Your task to perform on an android device: Search for sushi restaurants on Maps Image 0: 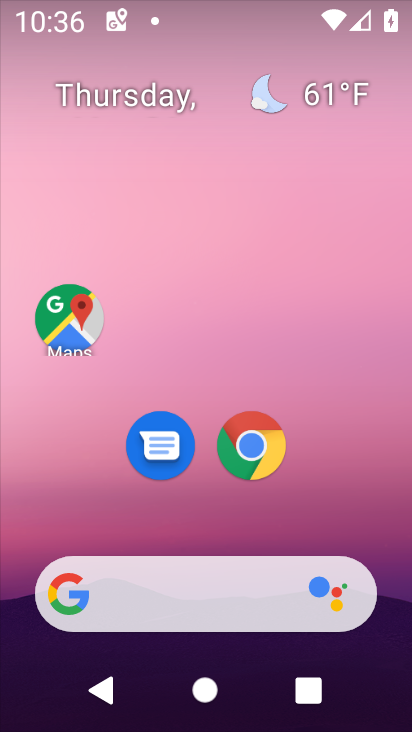
Step 0: click (71, 321)
Your task to perform on an android device: Search for sushi restaurants on Maps Image 1: 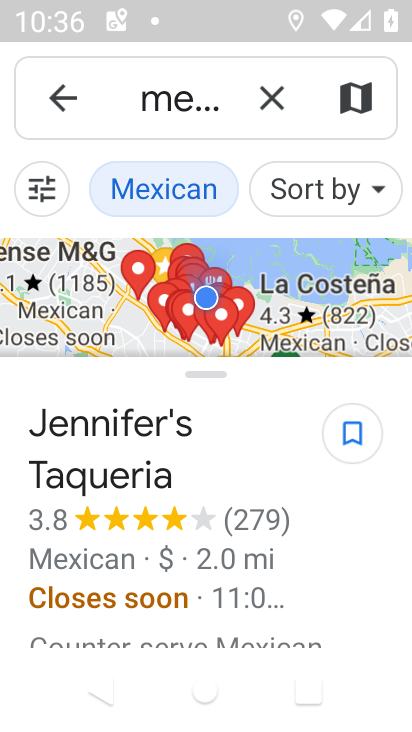
Step 1: click (276, 90)
Your task to perform on an android device: Search for sushi restaurants on Maps Image 2: 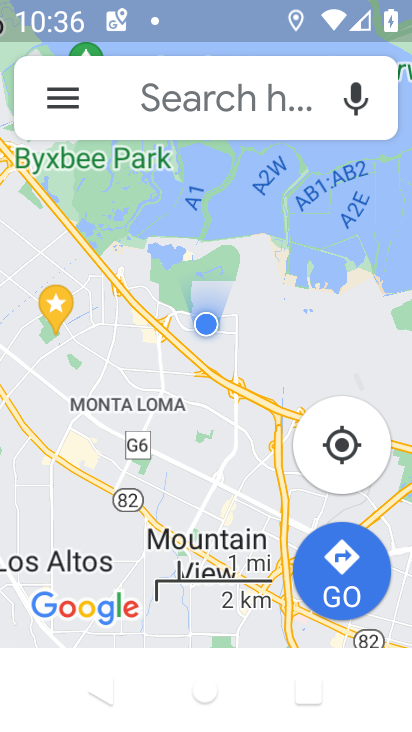
Step 2: click (217, 98)
Your task to perform on an android device: Search for sushi restaurants on Maps Image 3: 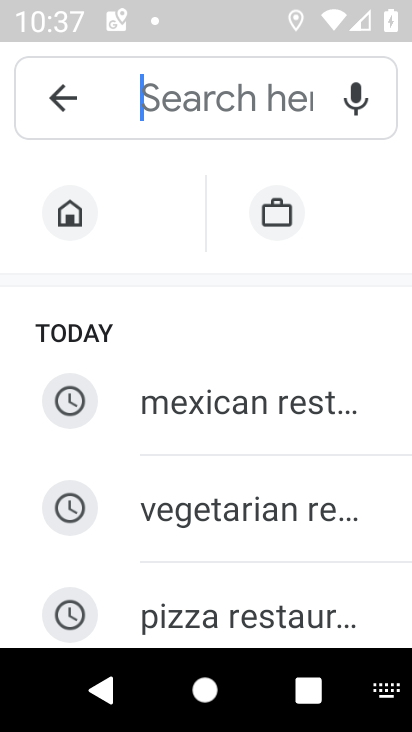
Step 3: type "sushi restaurants"
Your task to perform on an android device: Search for sushi restaurants on Maps Image 4: 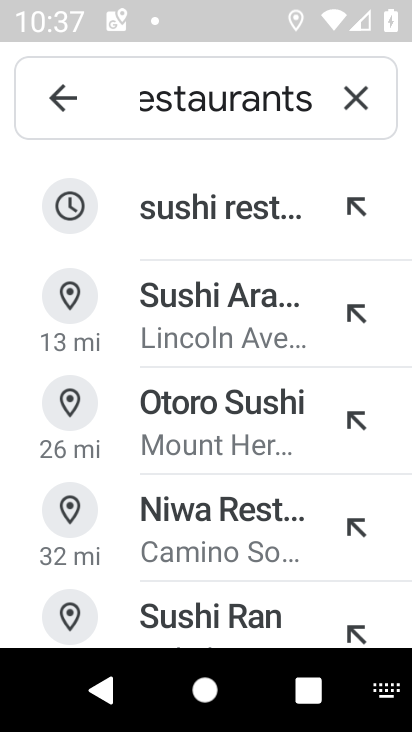
Step 4: click (250, 197)
Your task to perform on an android device: Search for sushi restaurants on Maps Image 5: 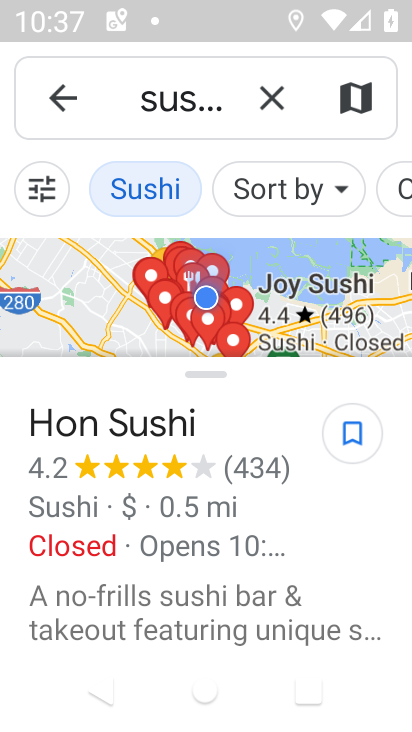
Step 5: task complete